Your task to perform on an android device: Open Yahoo.com Image 0: 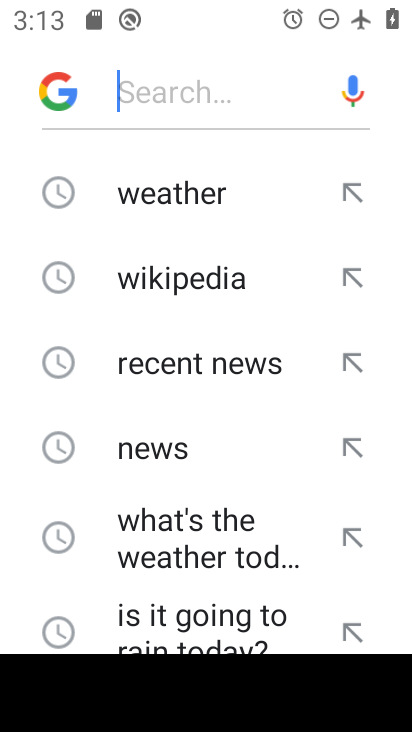
Step 0: press home button
Your task to perform on an android device: Open Yahoo.com Image 1: 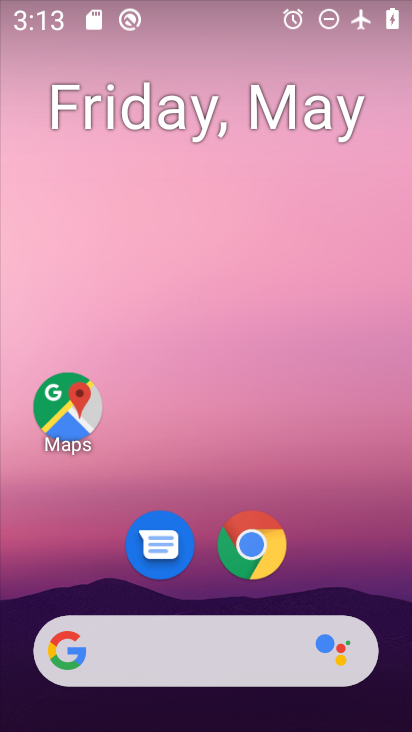
Step 1: click (265, 532)
Your task to perform on an android device: Open Yahoo.com Image 2: 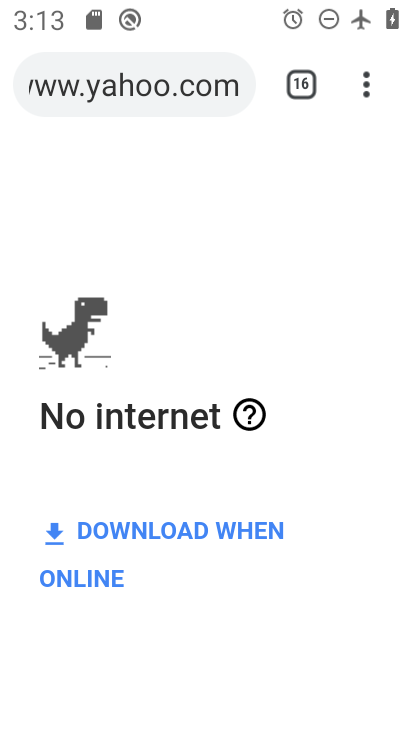
Step 2: click (363, 68)
Your task to perform on an android device: Open Yahoo.com Image 3: 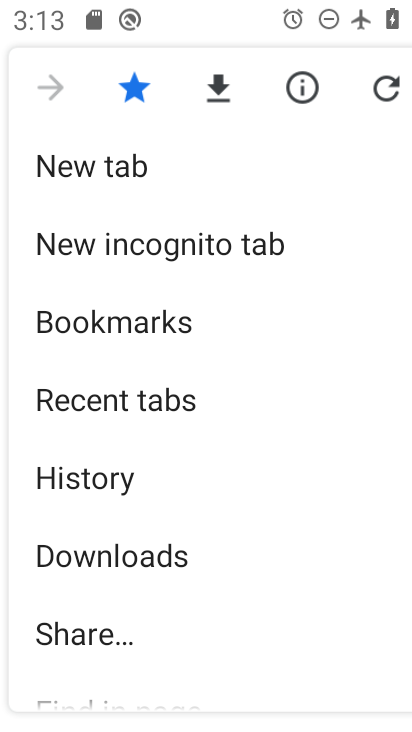
Step 3: click (170, 153)
Your task to perform on an android device: Open Yahoo.com Image 4: 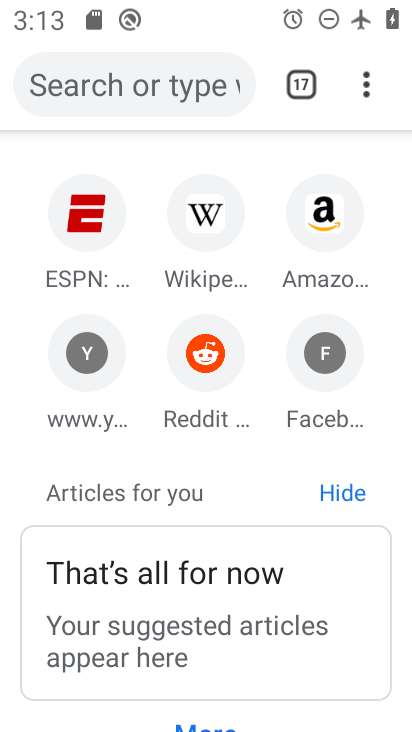
Step 4: click (79, 79)
Your task to perform on an android device: Open Yahoo.com Image 5: 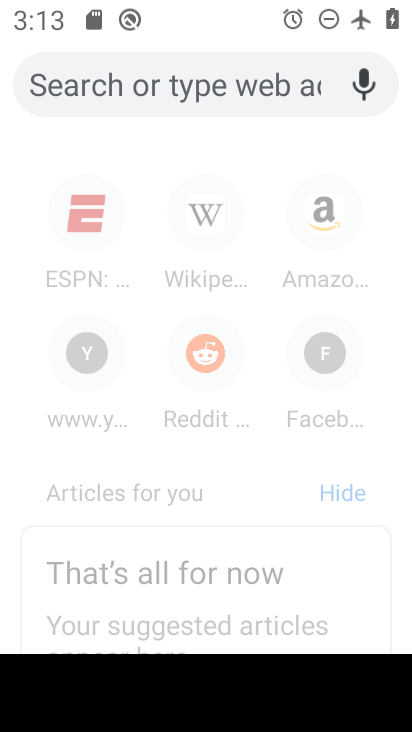
Step 5: type "Yahoo.com"
Your task to perform on an android device: Open Yahoo.com Image 6: 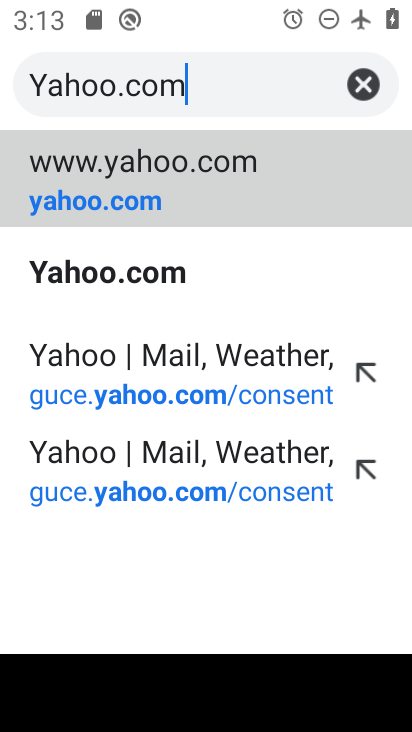
Step 6: click (193, 167)
Your task to perform on an android device: Open Yahoo.com Image 7: 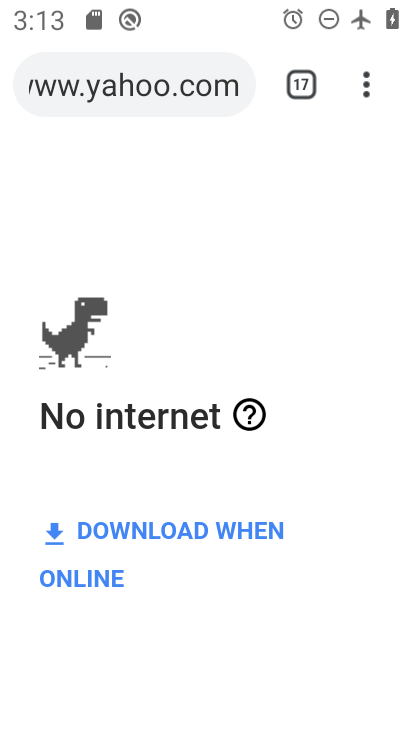
Step 7: task complete